Your task to perform on an android device: see tabs open on other devices in the chrome app Image 0: 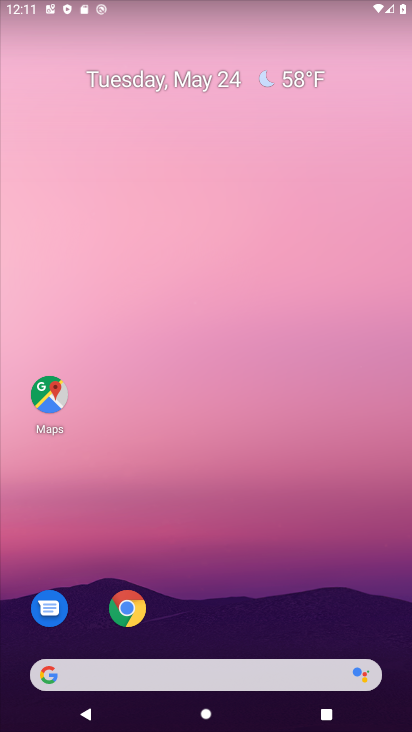
Step 0: drag from (236, 651) to (212, 62)
Your task to perform on an android device: see tabs open on other devices in the chrome app Image 1: 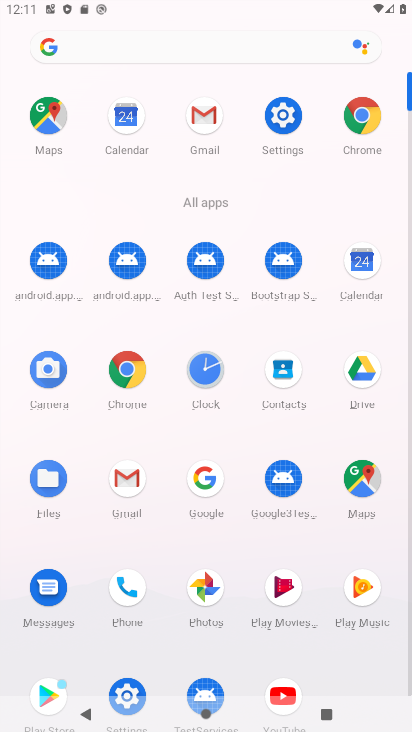
Step 1: click (348, 135)
Your task to perform on an android device: see tabs open on other devices in the chrome app Image 2: 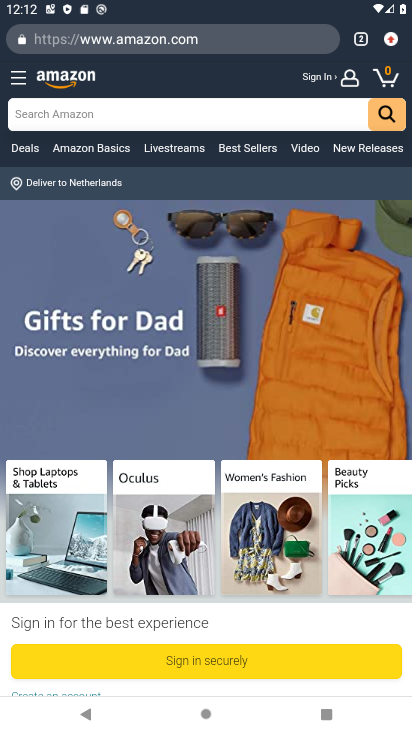
Step 2: click (361, 41)
Your task to perform on an android device: see tabs open on other devices in the chrome app Image 3: 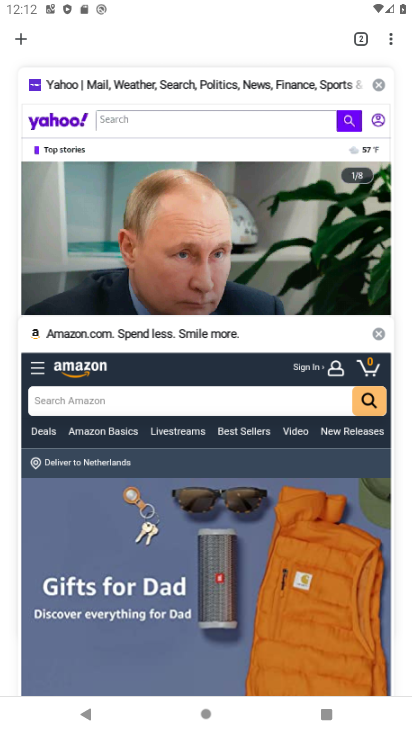
Step 3: click (14, 44)
Your task to perform on an android device: see tabs open on other devices in the chrome app Image 4: 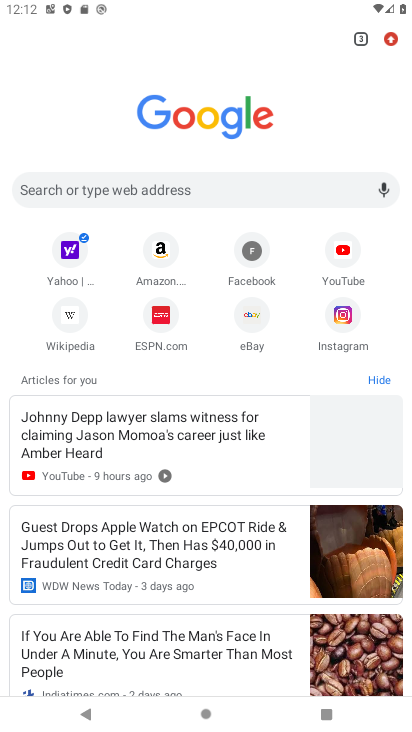
Step 4: task complete